Your task to perform on an android device: Open Chrome and go to settings Image 0: 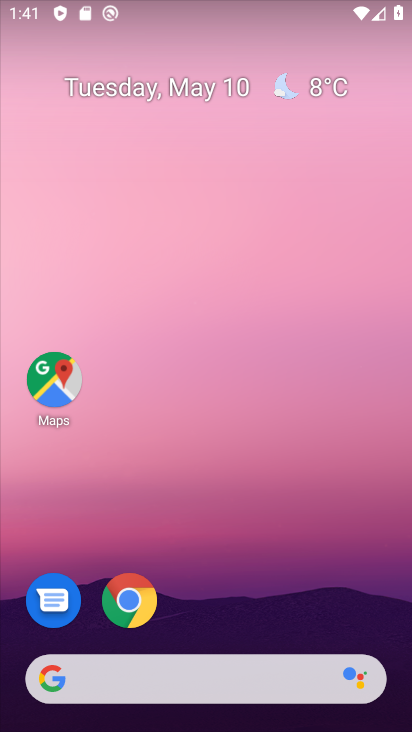
Step 0: drag from (211, 637) to (223, 143)
Your task to perform on an android device: Open Chrome and go to settings Image 1: 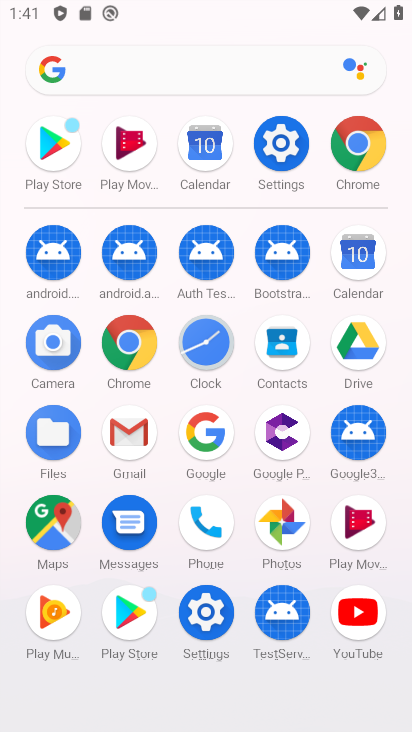
Step 1: click (206, 609)
Your task to perform on an android device: Open Chrome and go to settings Image 2: 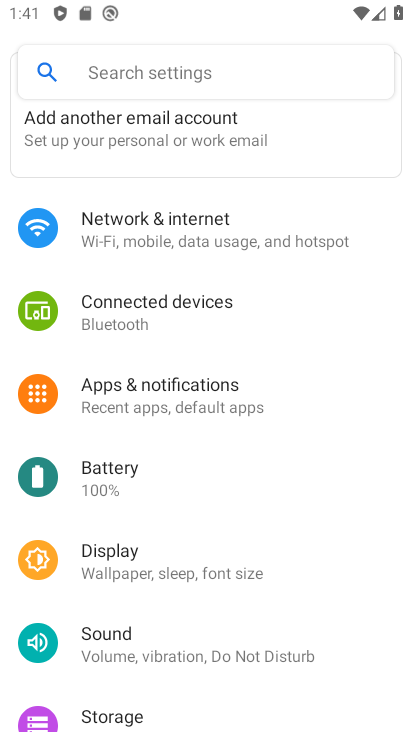
Step 2: press home button
Your task to perform on an android device: Open Chrome and go to settings Image 3: 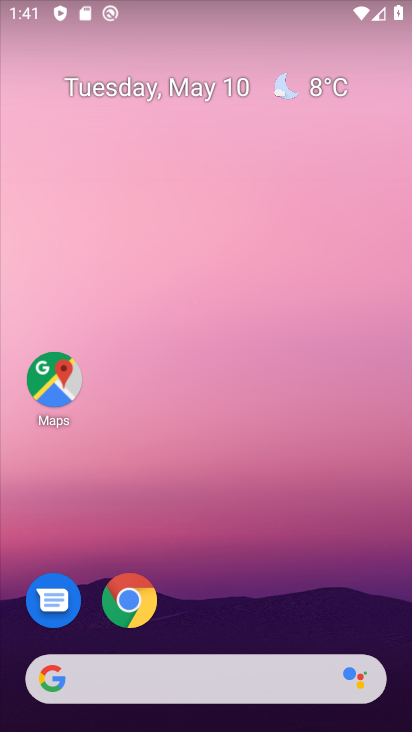
Step 3: click (139, 587)
Your task to perform on an android device: Open Chrome and go to settings Image 4: 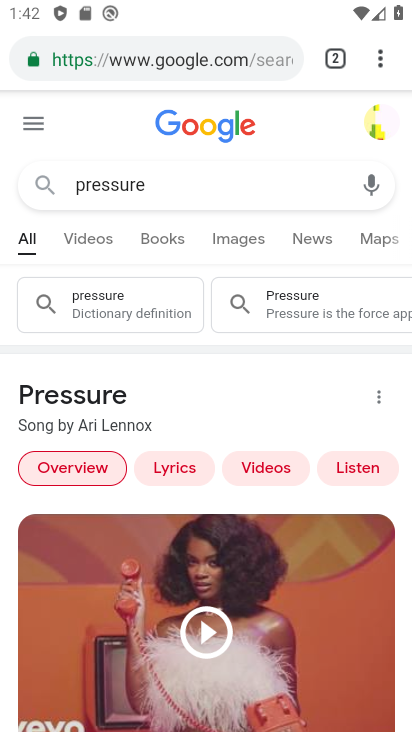
Step 4: click (376, 54)
Your task to perform on an android device: Open Chrome and go to settings Image 5: 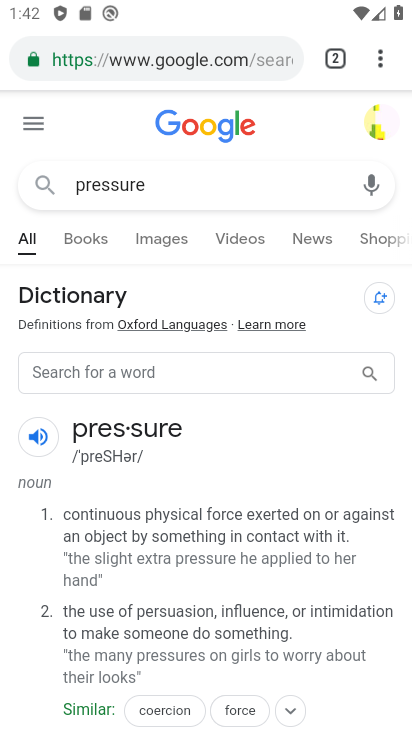
Step 5: click (375, 55)
Your task to perform on an android device: Open Chrome and go to settings Image 6: 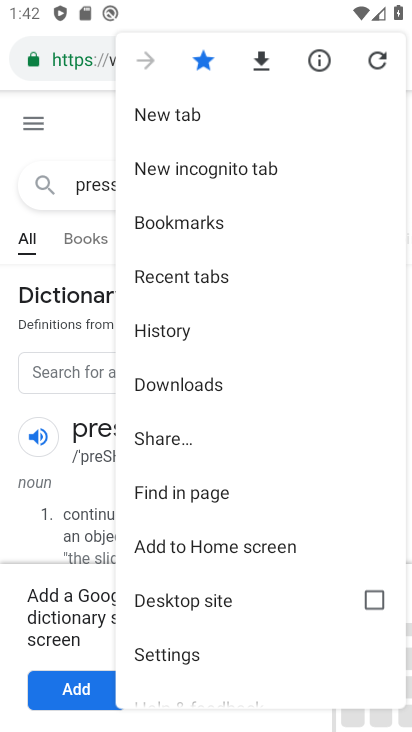
Step 6: click (209, 652)
Your task to perform on an android device: Open Chrome and go to settings Image 7: 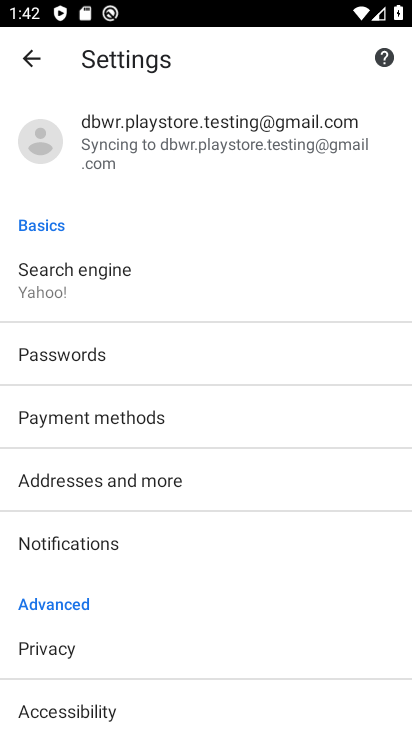
Step 7: task complete